Your task to perform on an android device: Show me recent news Image 0: 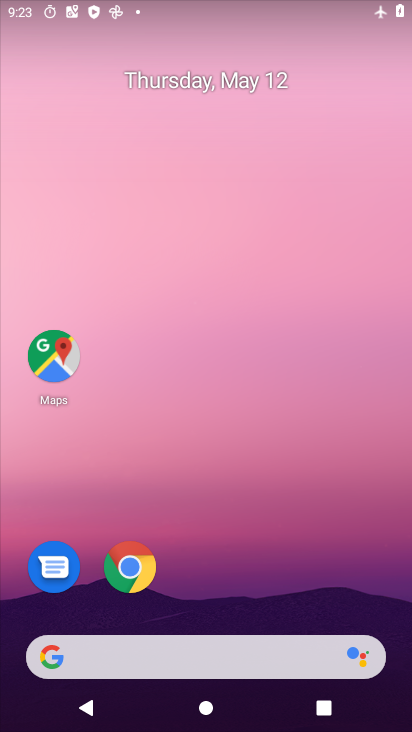
Step 0: drag from (299, 655) to (330, 177)
Your task to perform on an android device: Show me recent news Image 1: 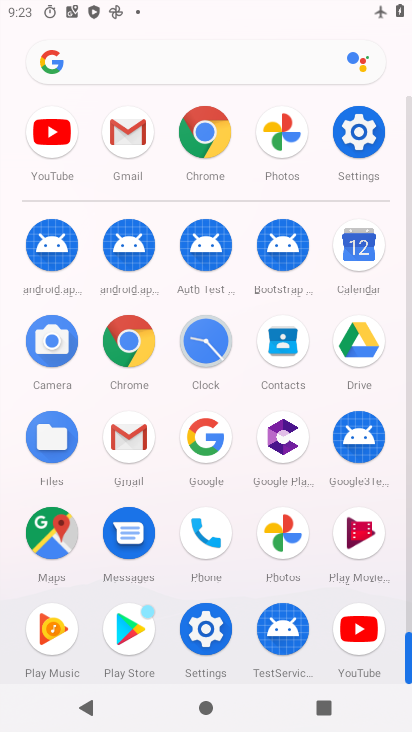
Step 1: click (198, 462)
Your task to perform on an android device: Show me recent news Image 2: 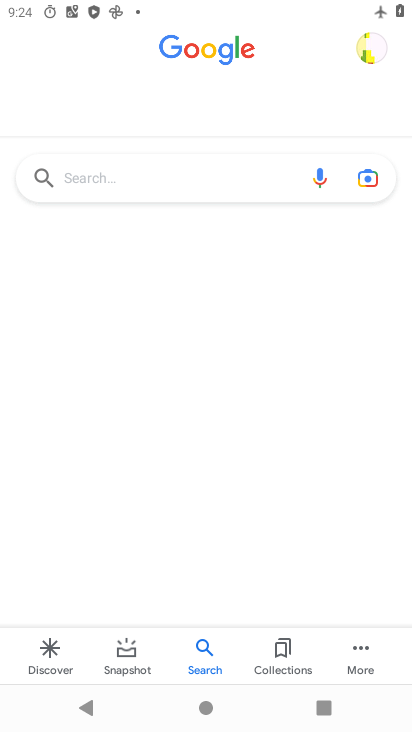
Step 2: click (192, 173)
Your task to perform on an android device: Show me recent news Image 3: 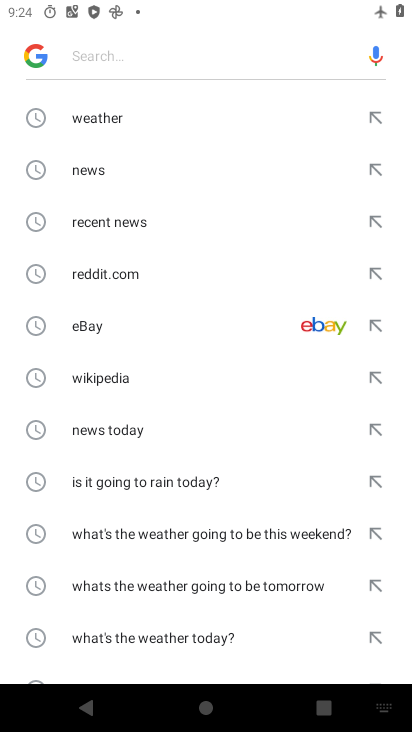
Step 3: click (160, 188)
Your task to perform on an android device: Show me recent news Image 4: 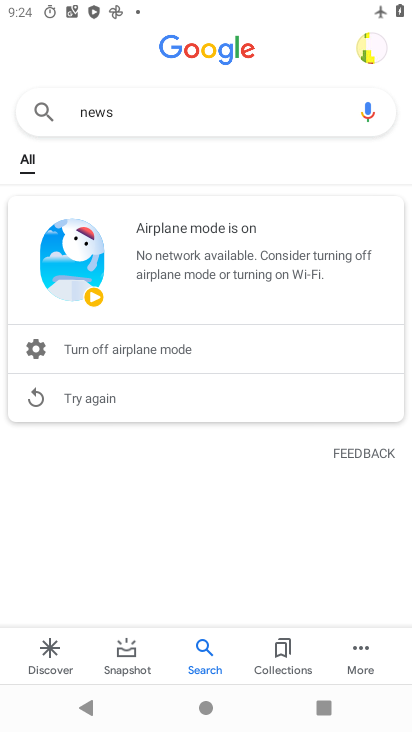
Step 4: task complete